Your task to perform on an android device: toggle javascript in the chrome app Image 0: 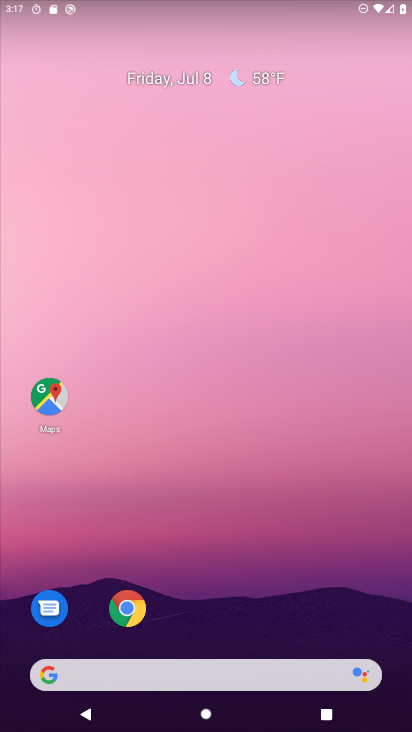
Step 0: click (131, 609)
Your task to perform on an android device: toggle javascript in the chrome app Image 1: 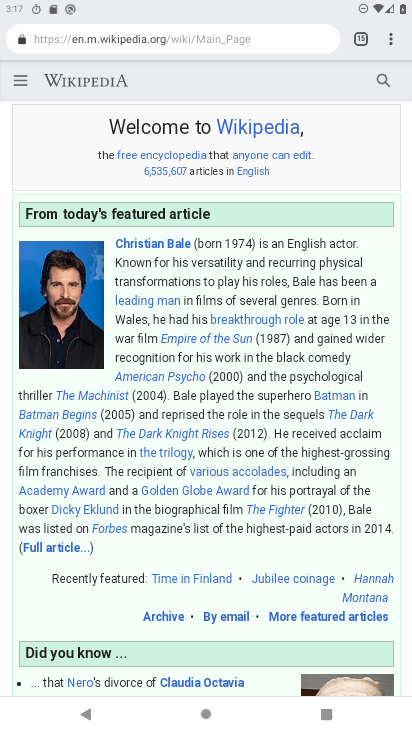
Step 1: click (389, 41)
Your task to perform on an android device: toggle javascript in the chrome app Image 2: 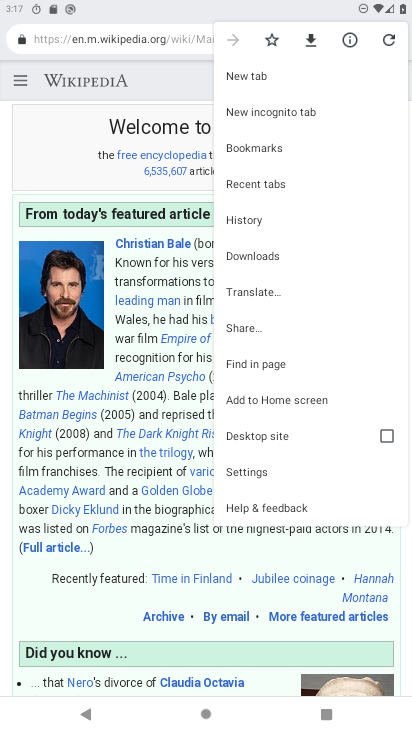
Step 2: click (249, 470)
Your task to perform on an android device: toggle javascript in the chrome app Image 3: 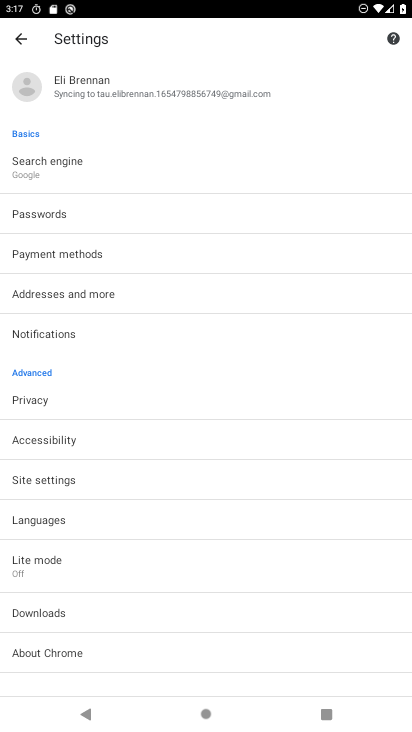
Step 3: click (42, 480)
Your task to perform on an android device: toggle javascript in the chrome app Image 4: 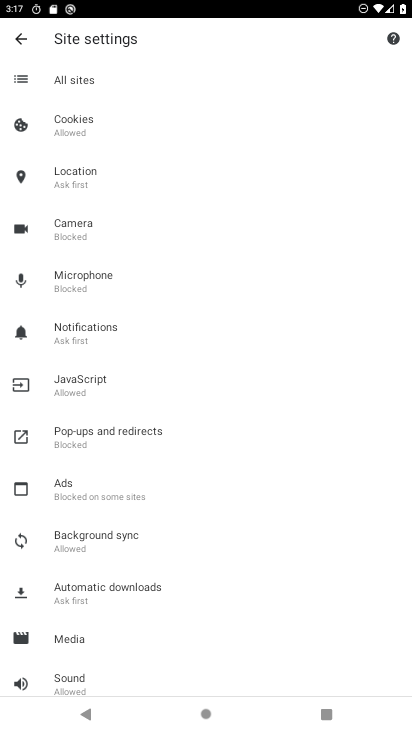
Step 4: click (72, 382)
Your task to perform on an android device: toggle javascript in the chrome app Image 5: 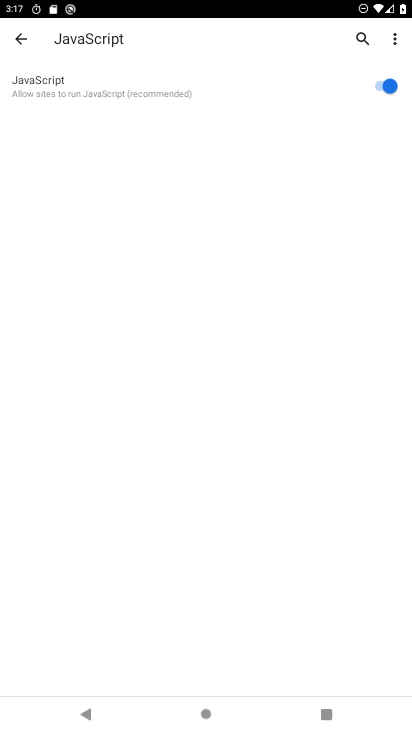
Step 5: click (384, 79)
Your task to perform on an android device: toggle javascript in the chrome app Image 6: 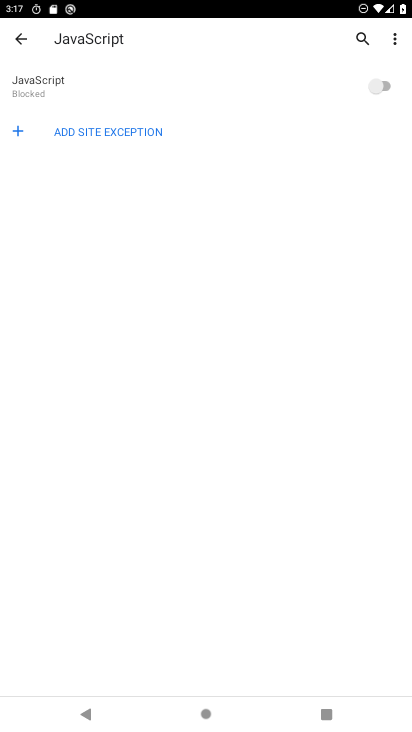
Step 6: task complete